Your task to perform on an android device: turn off javascript in the chrome app Image 0: 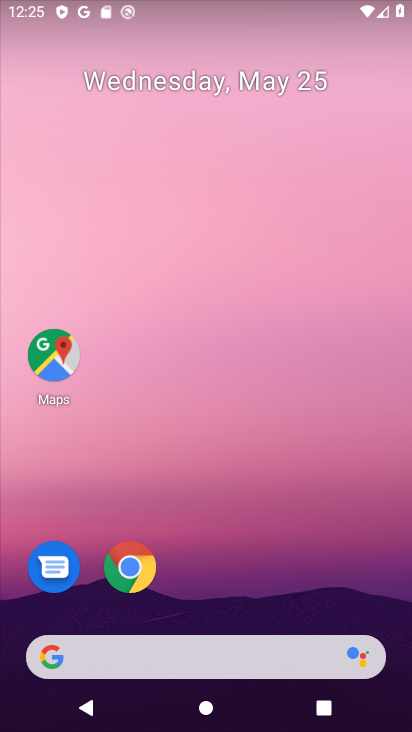
Step 0: click (129, 564)
Your task to perform on an android device: turn off javascript in the chrome app Image 1: 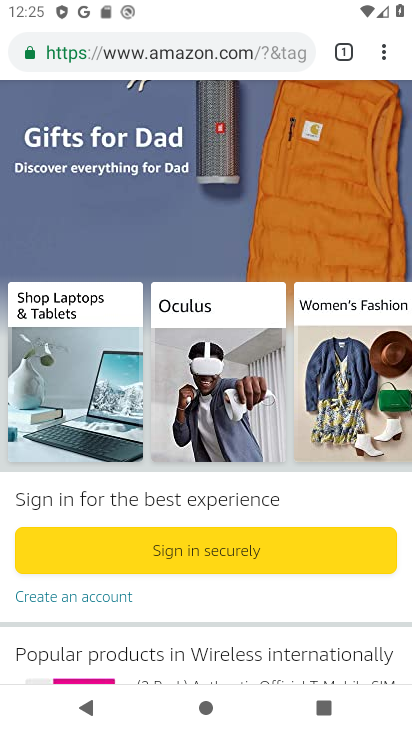
Step 1: click (386, 51)
Your task to perform on an android device: turn off javascript in the chrome app Image 2: 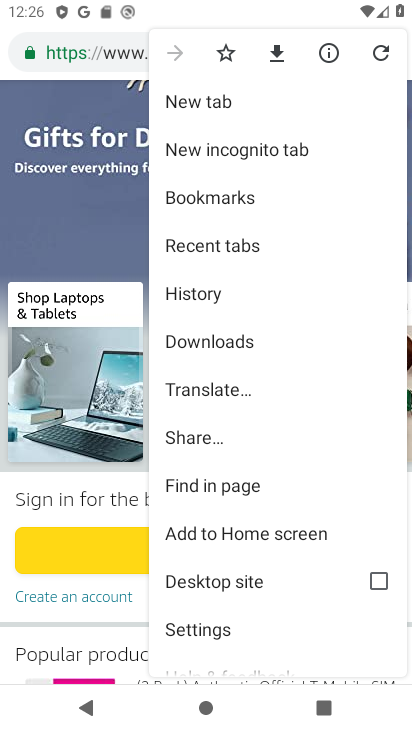
Step 2: click (199, 631)
Your task to perform on an android device: turn off javascript in the chrome app Image 3: 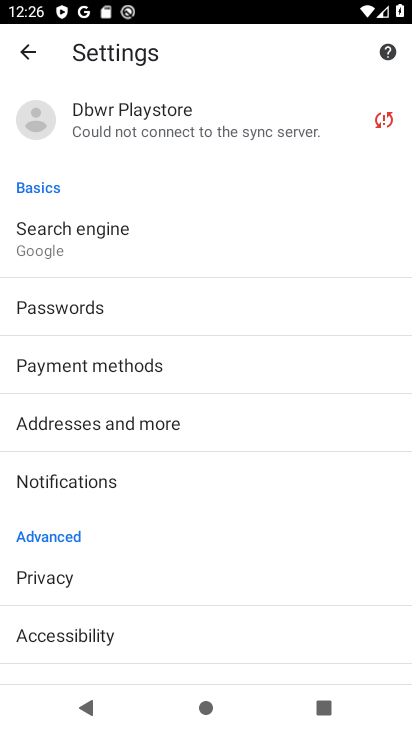
Step 3: drag from (159, 579) to (210, 461)
Your task to perform on an android device: turn off javascript in the chrome app Image 4: 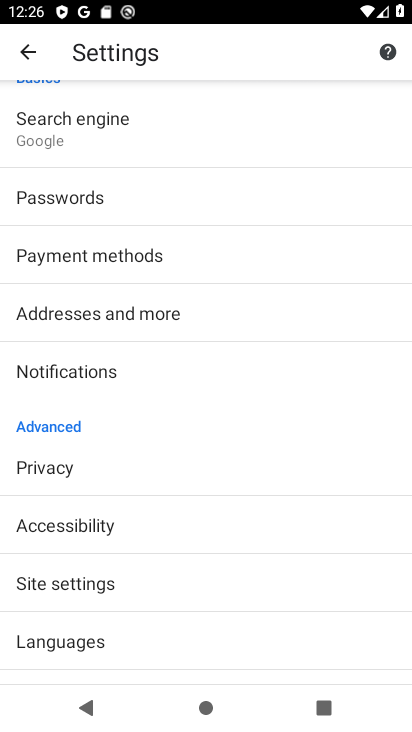
Step 4: click (70, 585)
Your task to perform on an android device: turn off javascript in the chrome app Image 5: 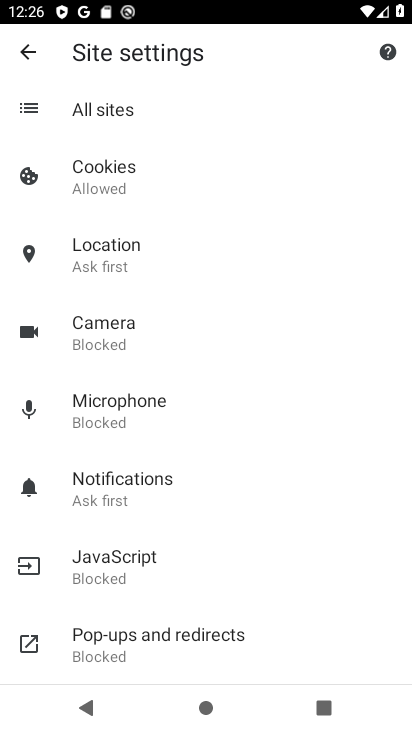
Step 5: click (97, 562)
Your task to perform on an android device: turn off javascript in the chrome app Image 6: 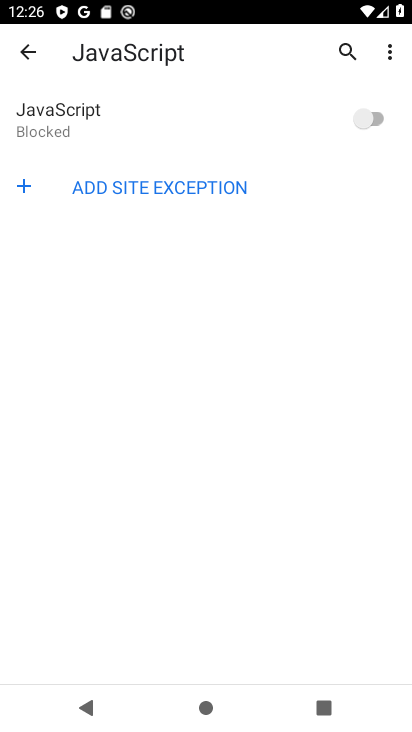
Step 6: task complete